Your task to perform on an android device: Empty the shopping cart on ebay.com. Search for duracell triple a on ebay.com, select the first entry, add it to the cart, then select checkout. Image 0: 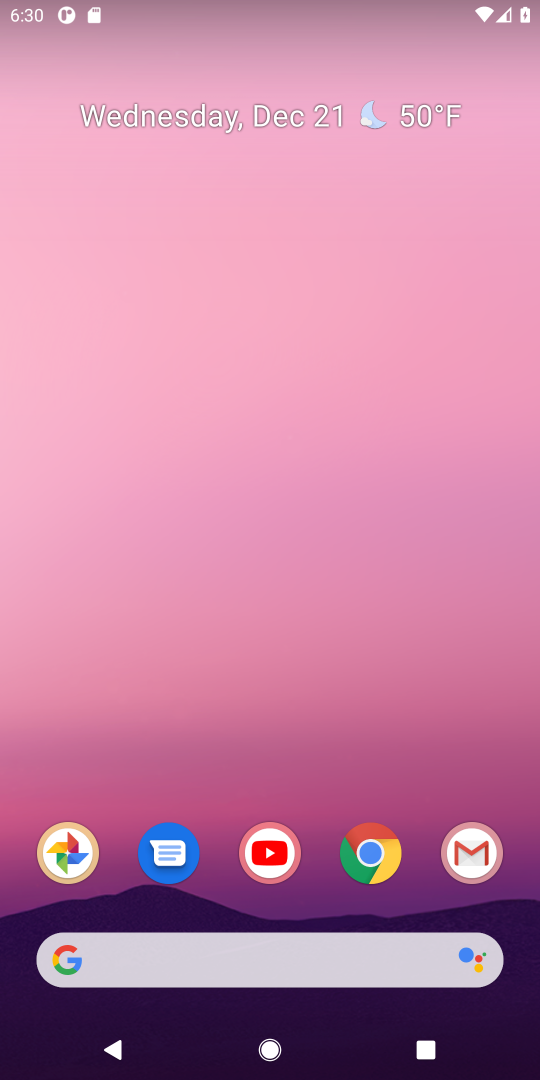
Step 0: click (368, 857)
Your task to perform on an android device: Empty the shopping cart on ebay.com. Search for duracell triple a on ebay.com, select the first entry, add it to the cart, then select checkout. Image 1: 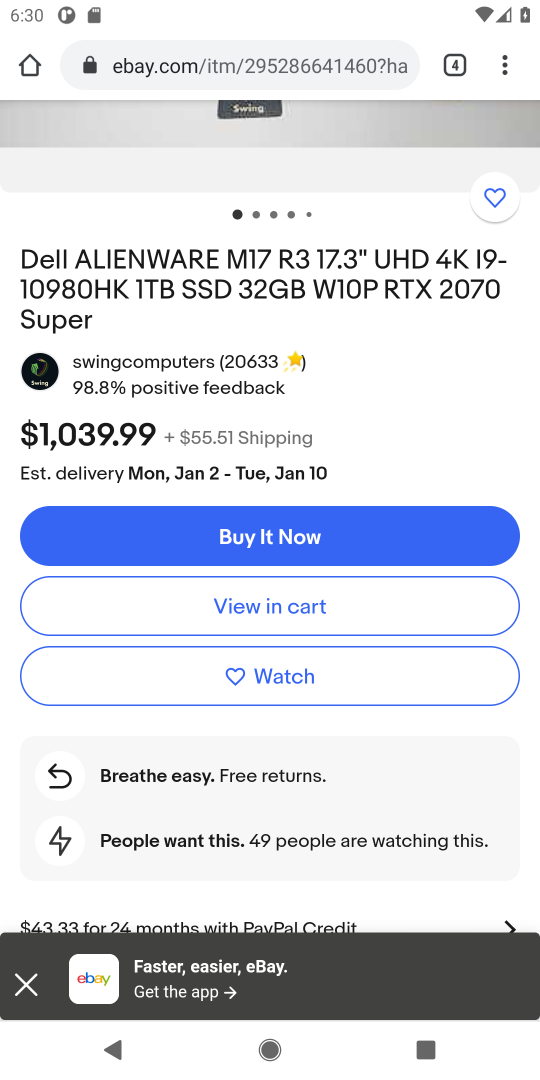
Step 1: click (313, 604)
Your task to perform on an android device: Empty the shopping cart on ebay.com. Search for duracell triple a on ebay.com, select the first entry, add it to the cart, then select checkout. Image 2: 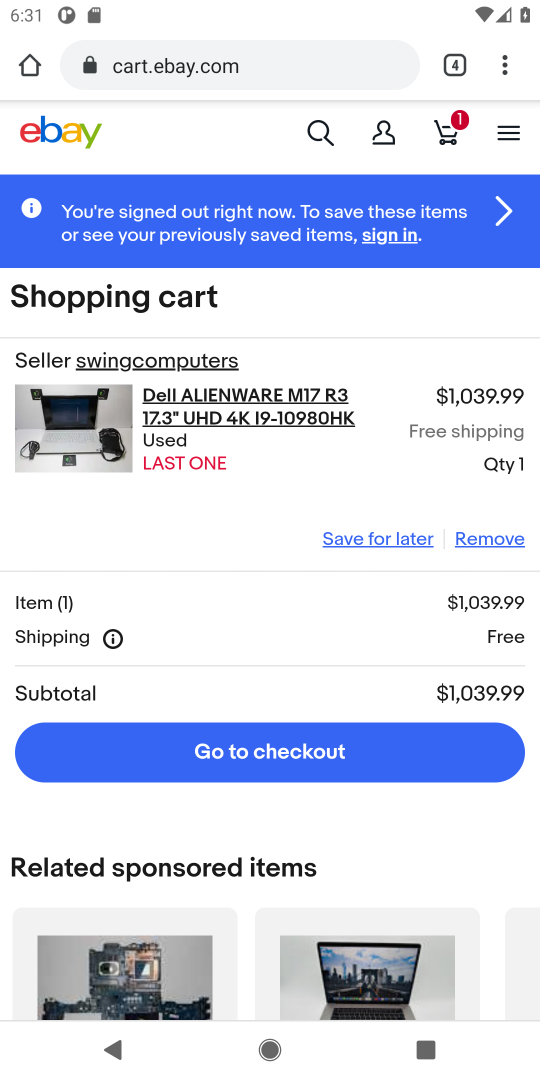
Step 2: click (482, 537)
Your task to perform on an android device: Empty the shopping cart on ebay.com. Search for duracell triple a on ebay.com, select the first entry, add it to the cart, then select checkout. Image 3: 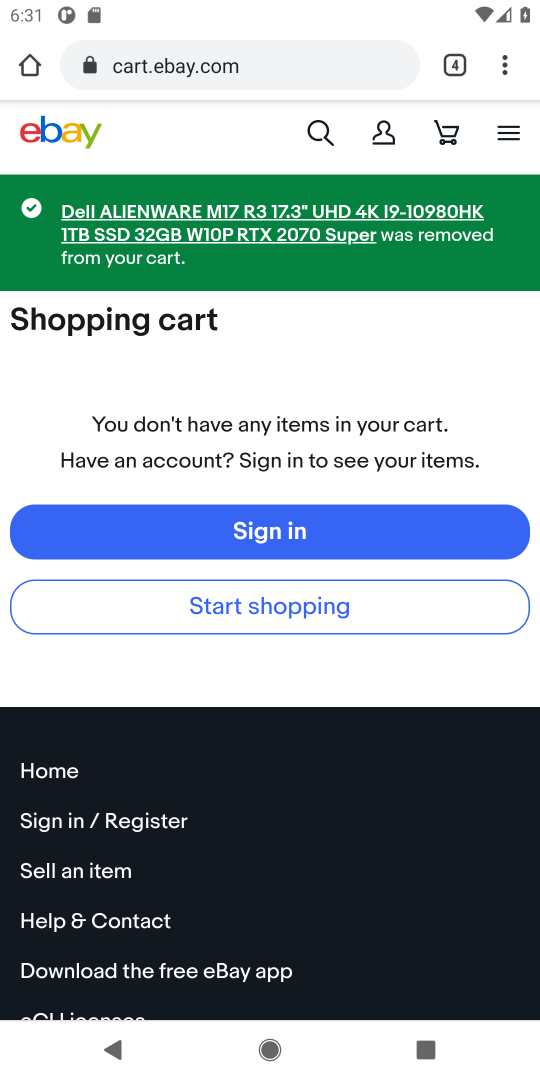
Step 3: click (314, 132)
Your task to perform on an android device: Empty the shopping cart on ebay.com. Search for duracell triple a on ebay.com, select the first entry, add it to the cart, then select checkout. Image 4: 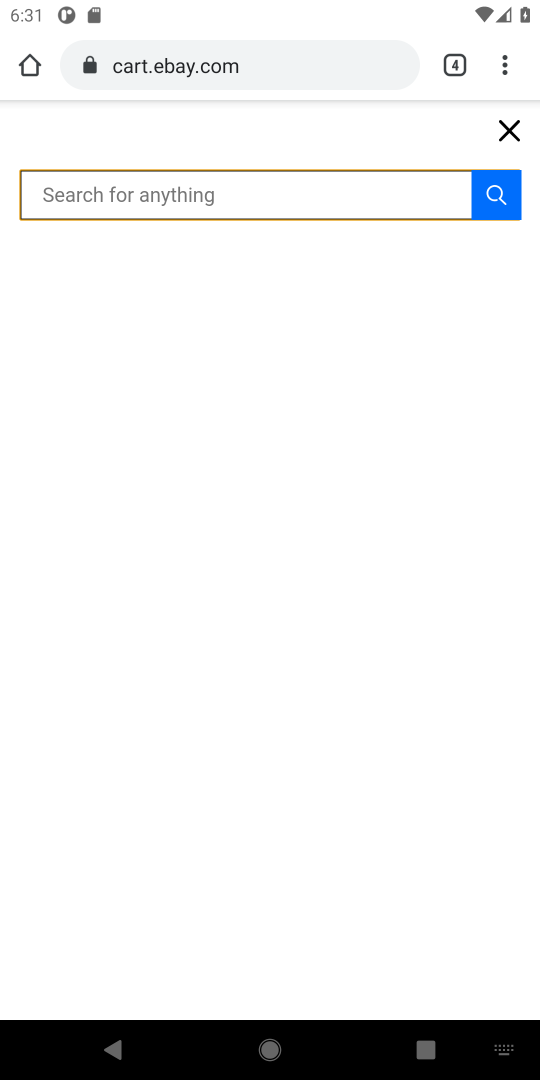
Step 4: type "duracell triple a battery"
Your task to perform on an android device: Empty the shopping cart on ebay.com. Search for duracell triple a on ebay.com, select the first entry, add it to the cart, then select checkout. Image 5: 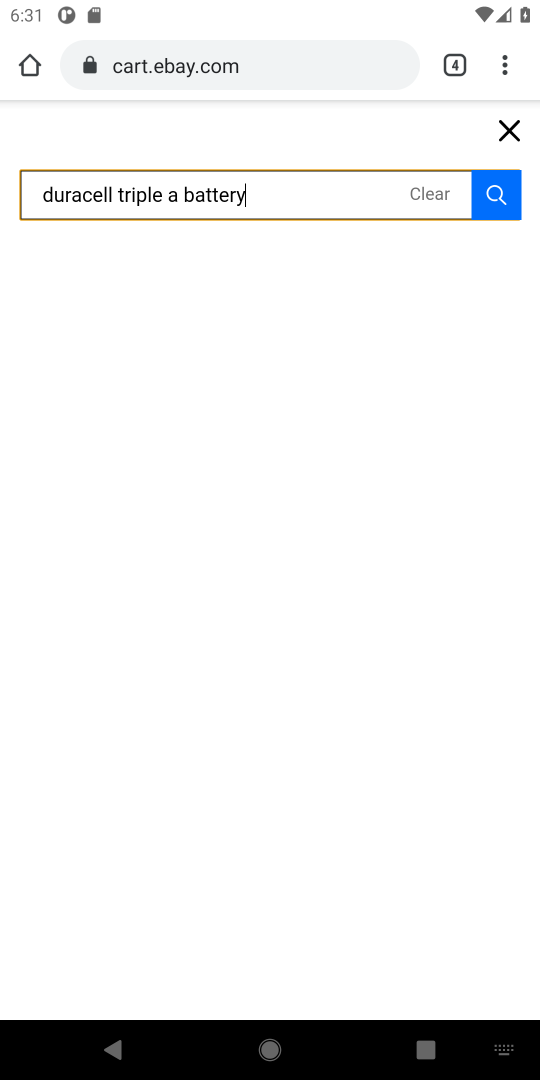
Step 5: click (510, 200)
Your task to perform on an android device: Empty the shopping cart on ebay.com. Search for duracell triple a on ebay.com, select the first entry, add it to the cart, then select checkout. Image 6: 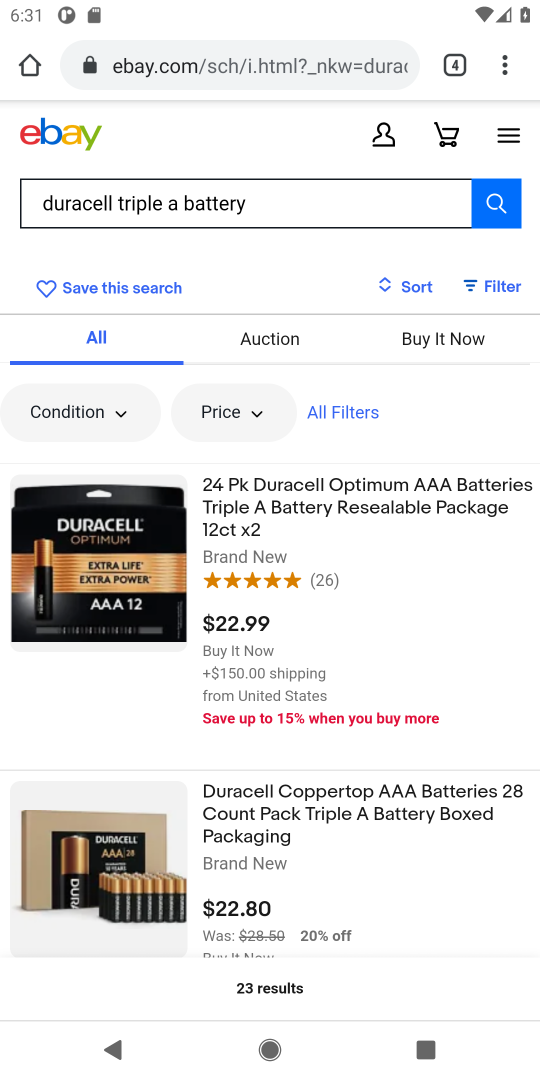
Step 6: click (283, 526)
Your task to perform on an android device: Empty the shopping cart on ebay.com. Search for duracell triple a on ebay.com, select the first entry, add it to the cart, then select checkout. Image 7: 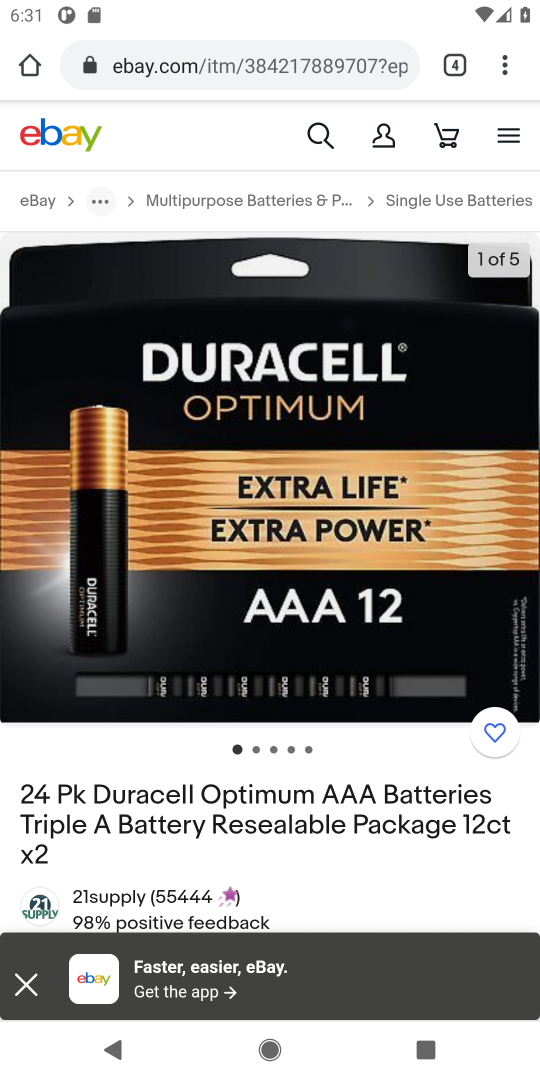
Step 7: click (28, 986)
Your task to perform on an android device: Empty the shopping cart on ebay.com. Search for duracell triple a on ebay.com, select the first entry, add it to the cart, then select checkout. Image 8: 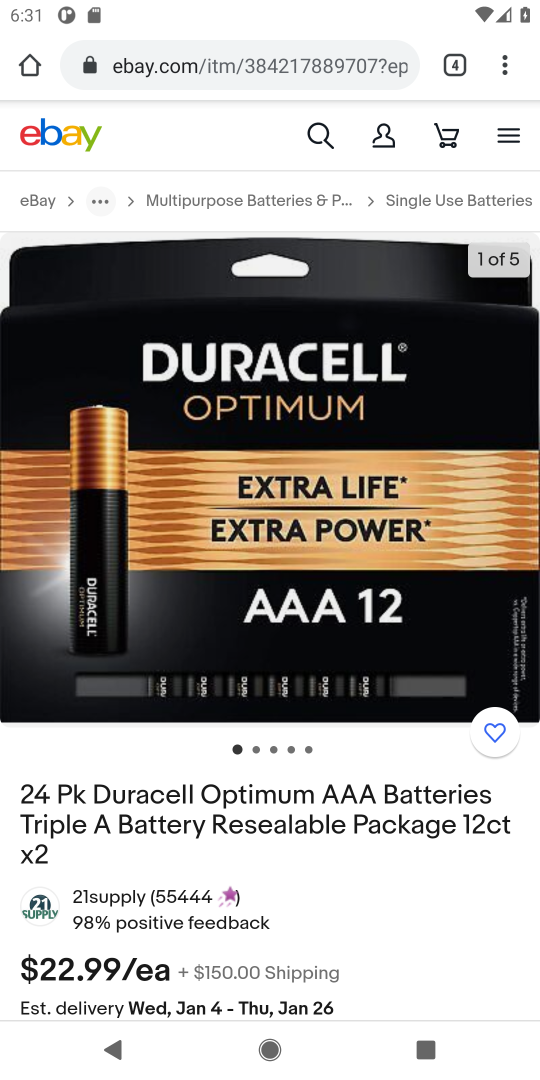
Step 8: drag from (345, 871) to (353, 331)
Your task to perform on an android device: Empty the shopping cart on ebay.com. Search for duracell triple a on ebay.com, select the first entry, add it to the cart, then select checkout. Image 9: 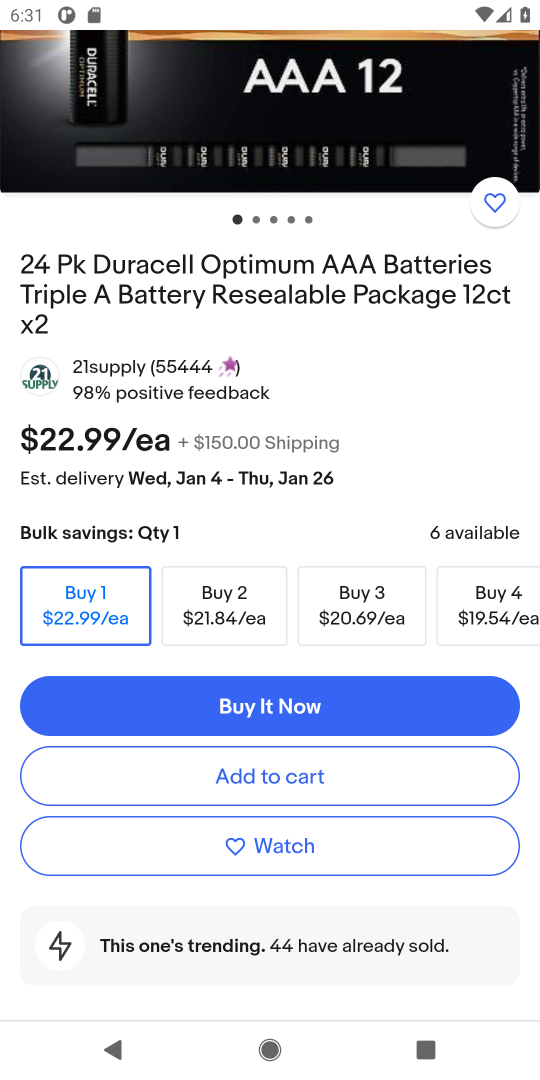
Step 9: click (270, 774)
Your task to perform on an android device: Empty the shopping cart on ebay.com. Search for duracell triple a on ebay.com, select the first entry, add it to the cart, then select checkout. Image 10: 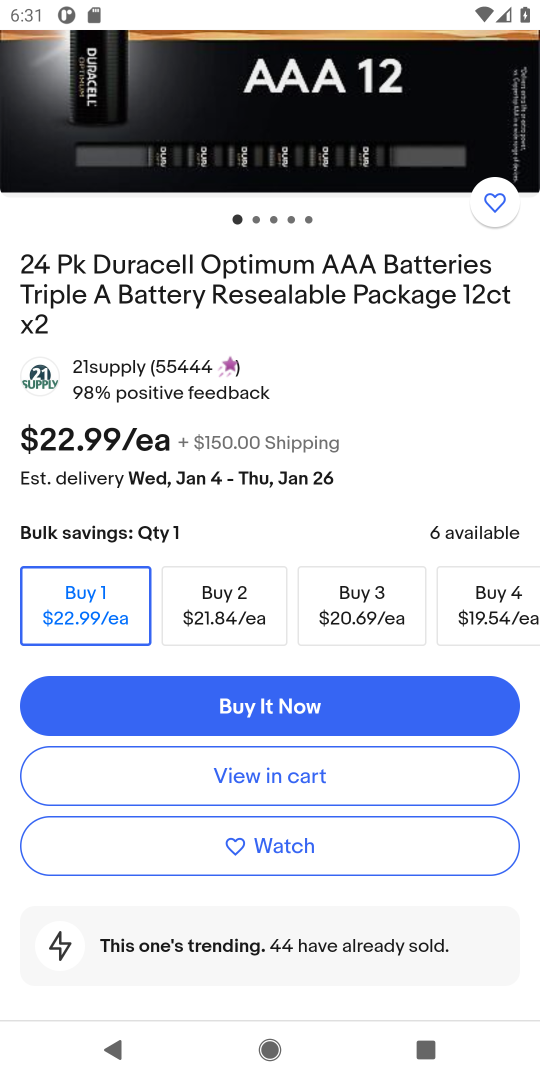
Step 10: task complete